Your task to perform on an android device: Go to display settings Image 0: 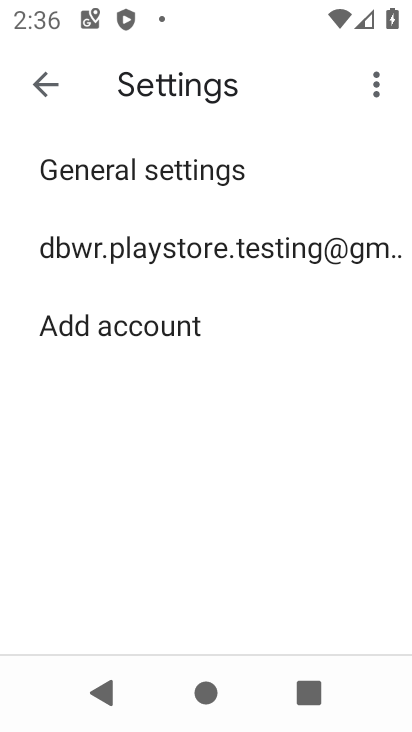
Step 0: press back button
Your task to perform on an android device: Go to display settings Image 1: 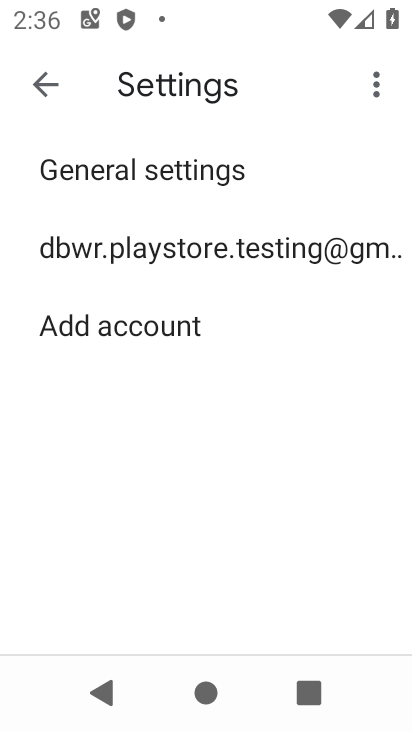
Step 1: press back button
Your task to perform on an android device: Go to display settings Image 2: 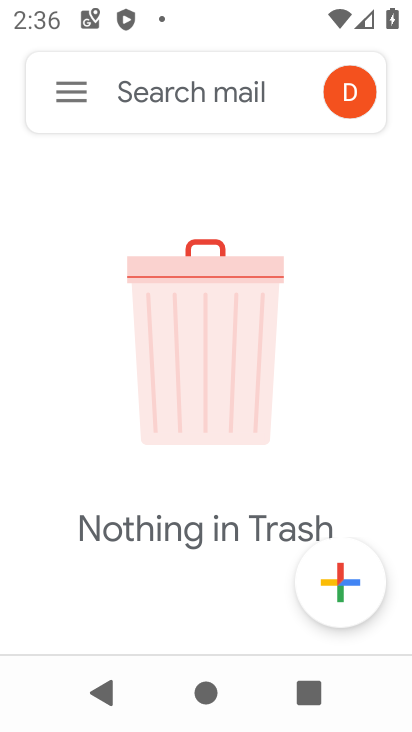
Step 2: press back button
Your task to perform on an android device: Go to display settings Image 3: 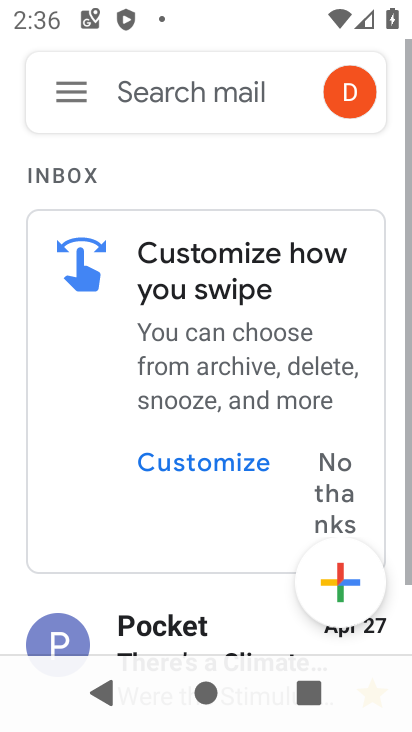
Step 3: press back button
Your task to perform on an android device: Go to display settings Image 4: 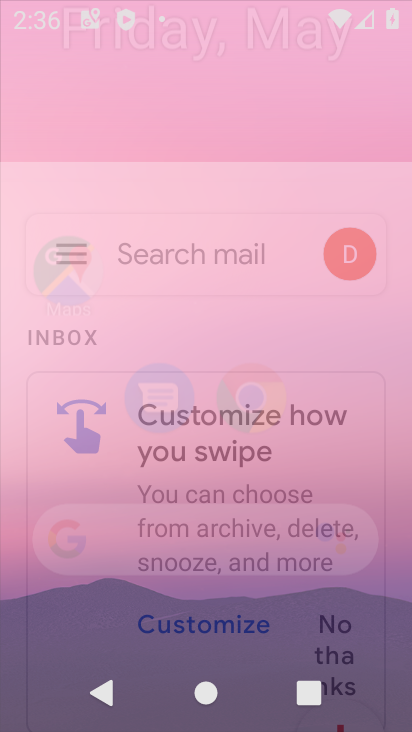
Step 4: press back button
Your task to perform on an android device: Go to display settings Image 5: 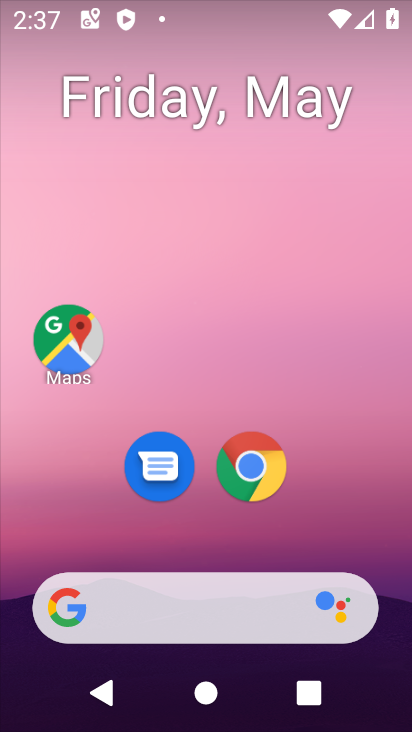
Step 5: drag from (213, 566) to (312, 50)
Your task to perform on an android device: Go to display settings Image 6: 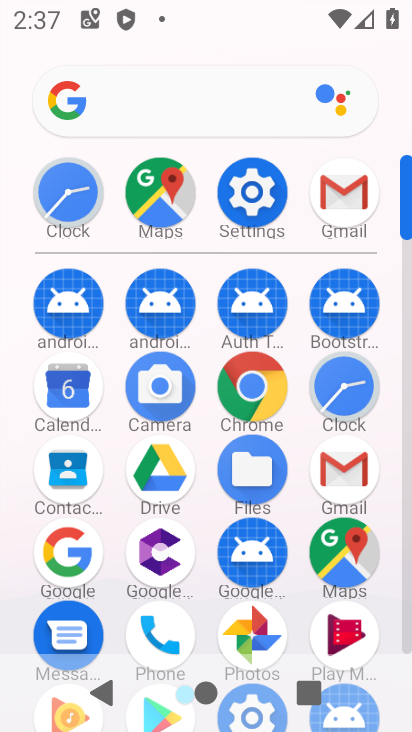
Step 6: click (253, 195)
Your task to perform on an android device: Go to display settings Image 7: 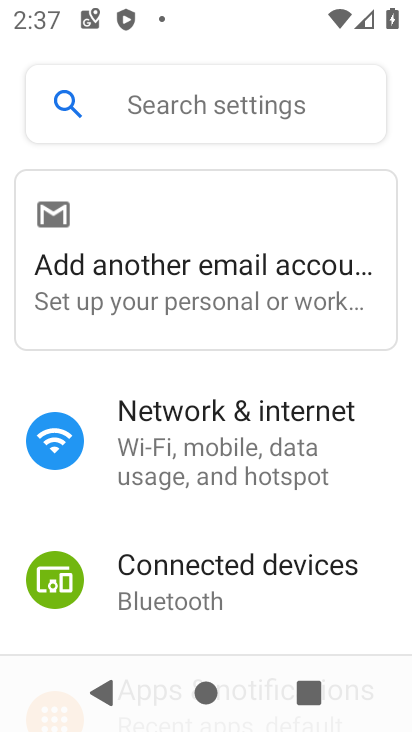
Step 7: drag from (185, 618) to (321, 114)
Your task to perform on an android device: Go to display settings Image 8: 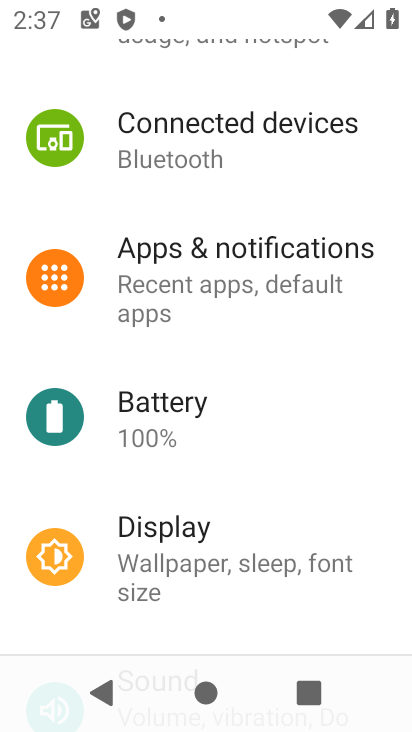
Step 8: click (193, 566)
Your task to perform on an android device: Go to display settings Image 9: 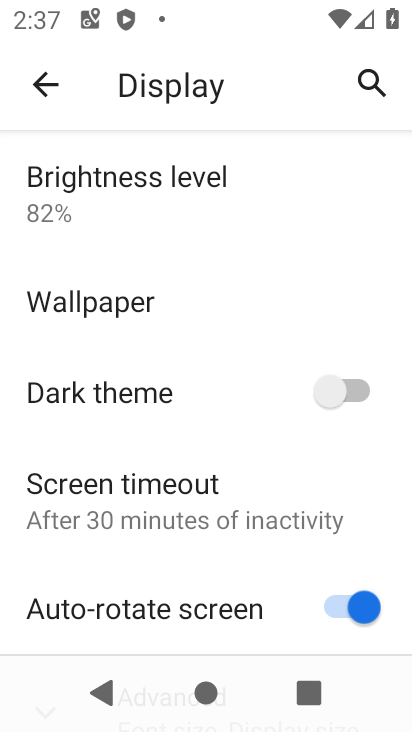
Step 9: task complete